Your task to perform on an android device: choose inbox layout in the gmail app Image 0: 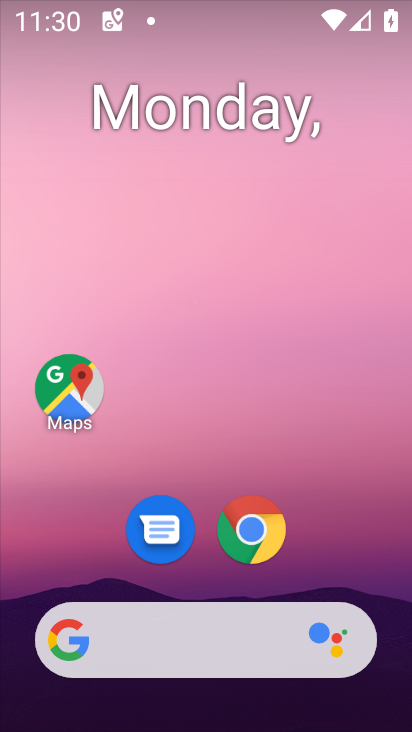
Step 0: press home button
Your task to perform on an android device: choose inbox layout in the gmail app Image 1: 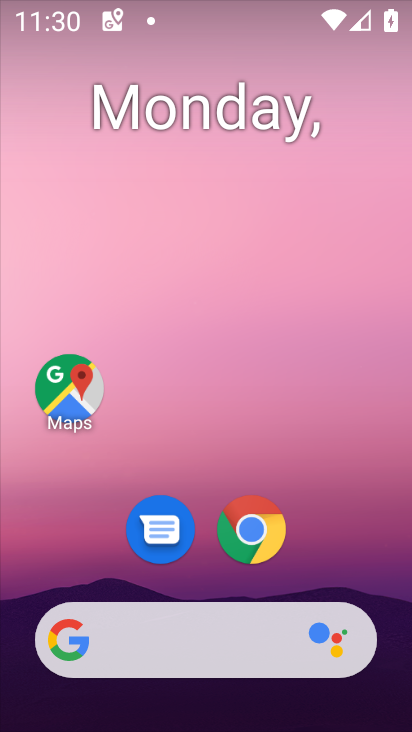
Step 1: drag from (180, 693) to (246, 178)
Your task to perform on an android device: choose inbox layout in the gmail app Image 2: 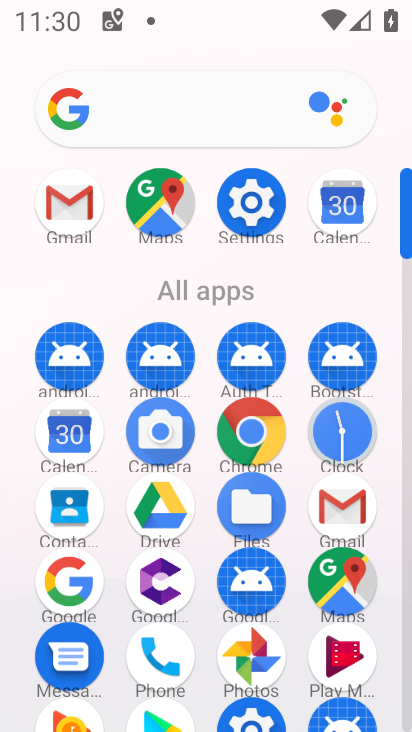
Step 2: click (83, 188)
Your task to perform on an android device: choose inbox layout in the gmail app Image 3: 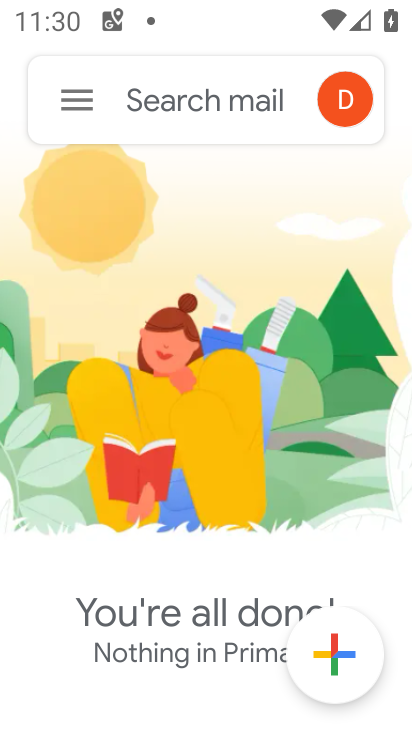
Step 3: click (69, 109)
Your task to perform on an android device: choose inbox layout in the gmail app Image 4: 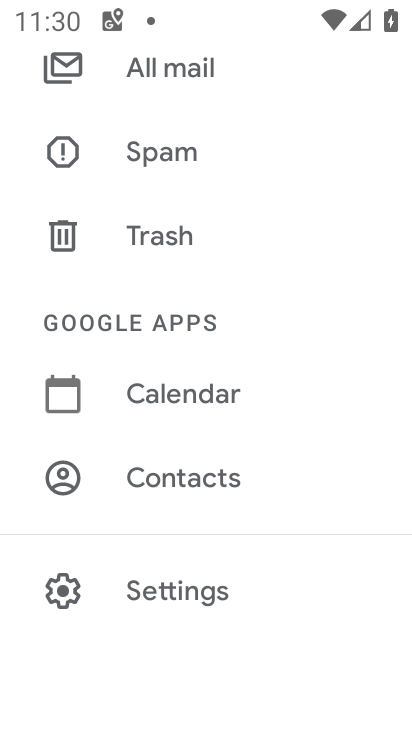
Step 4: click (202, 595)
Your task to perform on an android device: choose inbox layout in the gmail app Image 5: 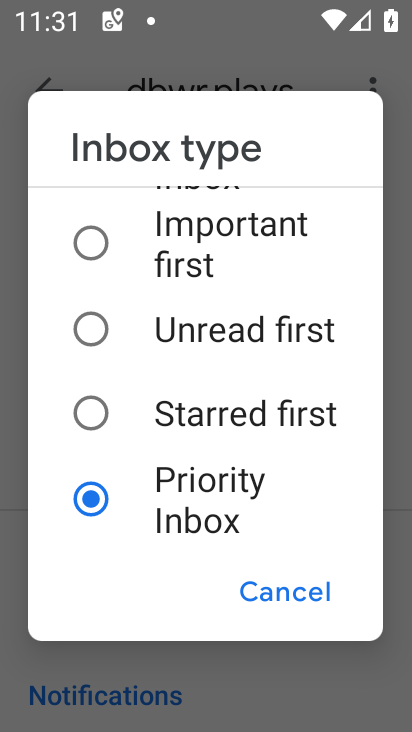
Step 5: task complete